Your task to perform on an android device: Go to internet settings Image 0: 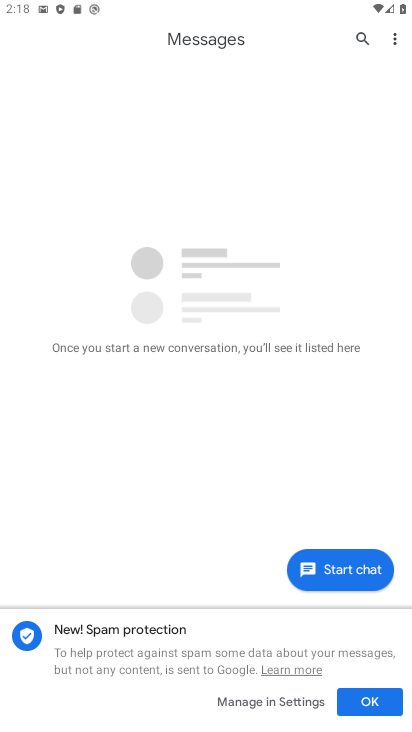
Step 0: drag from (284, 584) to (178, 90)
Your task to perform on an android device: Go to internet settings Image 1: 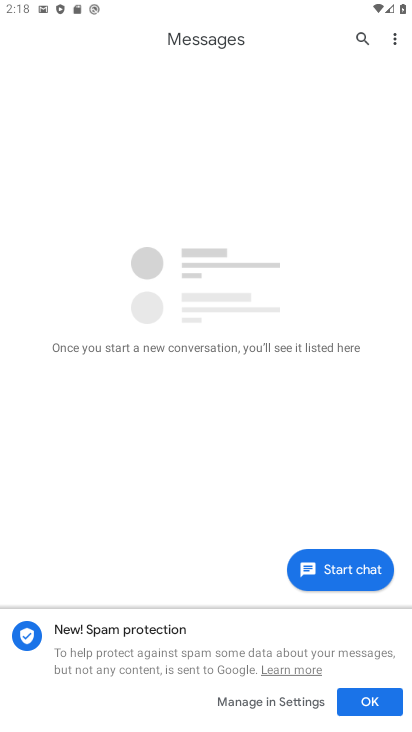
Step 1: drag from (241, 538) to (222, 222)
Your task to perform on an android device: Go to internet settings Image 2: 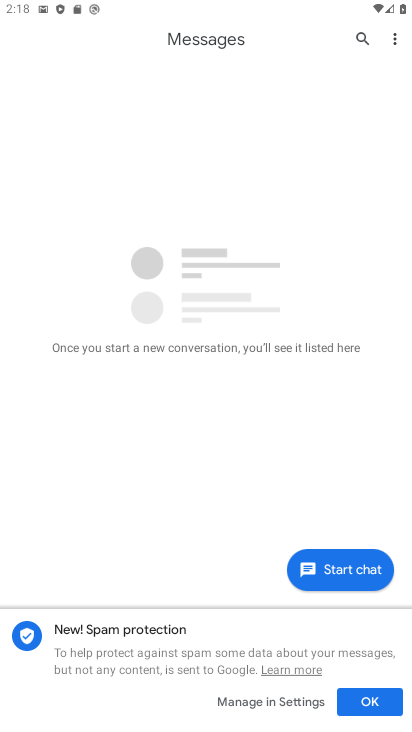
Step 2: press back button
Your task to perform on an android device: Go to internet settings Image 3: 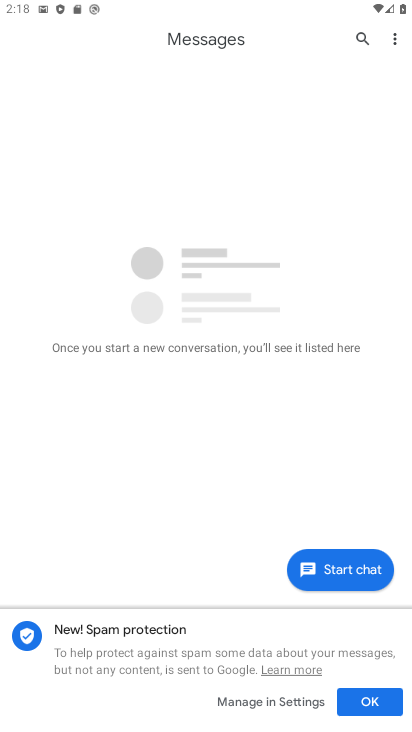
Step 3: press back button
Your task to perform on an android device: Go to internet settings Image 4: 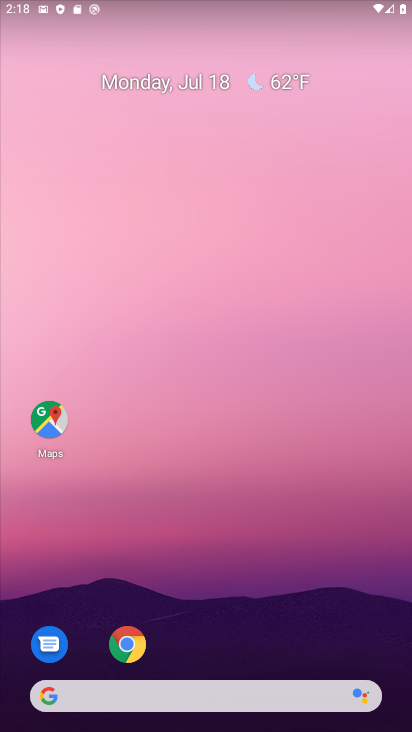
Step 4: drag from (256, 589) to (203, 258)
Your task to perform on an android device: Go to internet settings Image 5: 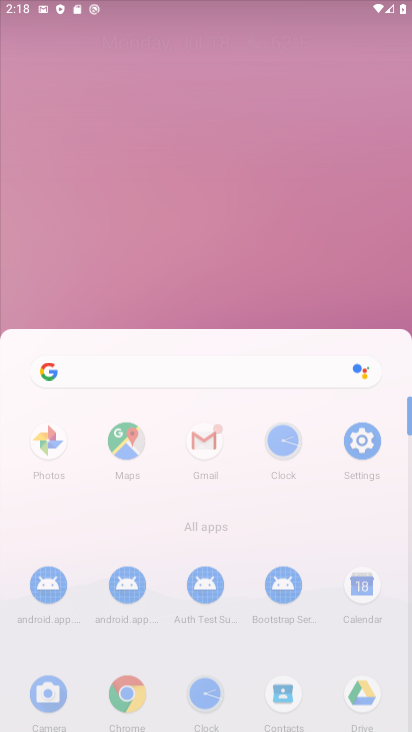
Step 5: click (201, 137)
Your task to perform on an android device: Go to internet settings Image 6: 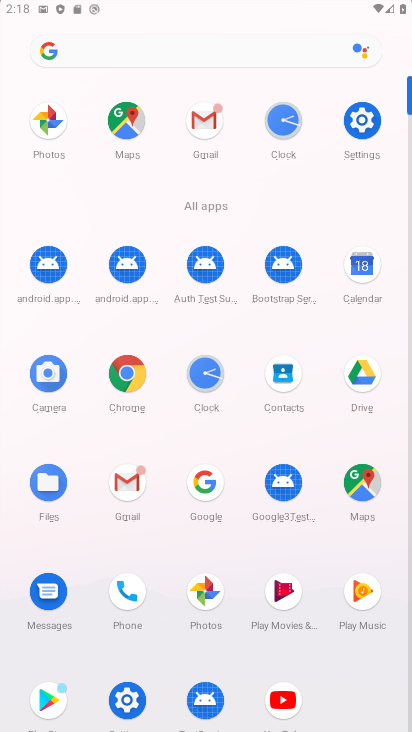
Step 6: click (299, 223)
Your task to perform on an android device: Go to internet settings Image 7: 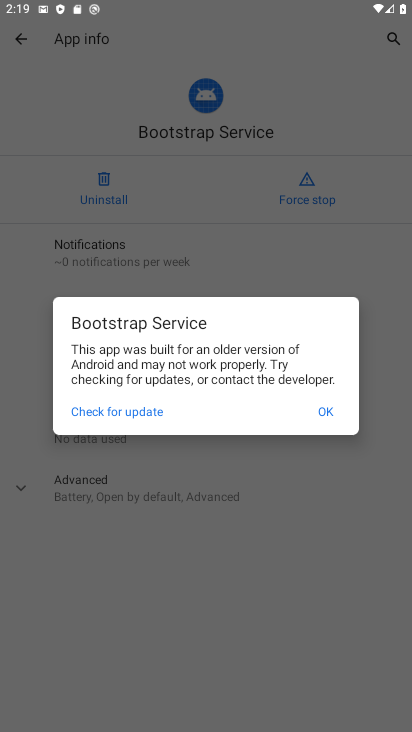
Step 7: click (322, 406)
Your task to perform on an android device: Go to internet settings Image 8: 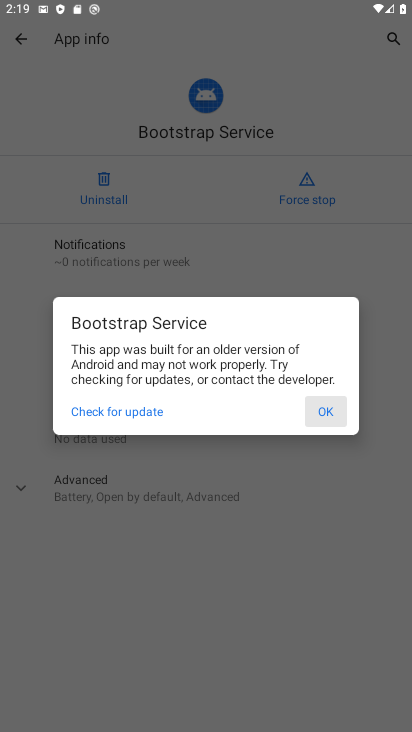
Step 8: click (326, 411)
Your task to perform on an android device: Go to internet settings Image 9: 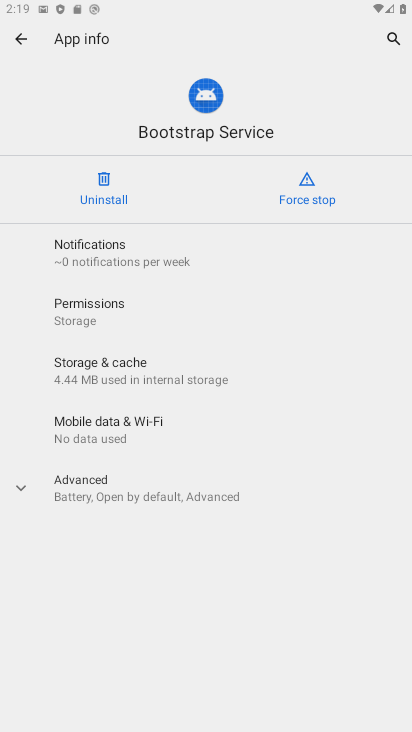
Step 9: click (326, 411)
Your task to perform on an android device: Go to internet settings Image 10: 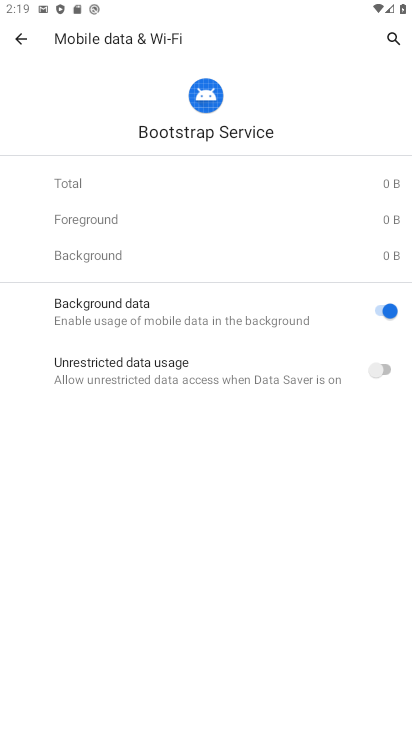
Step 10: click (20, 34)
Your task to perform on an android device: Go to internet settings Image 11: 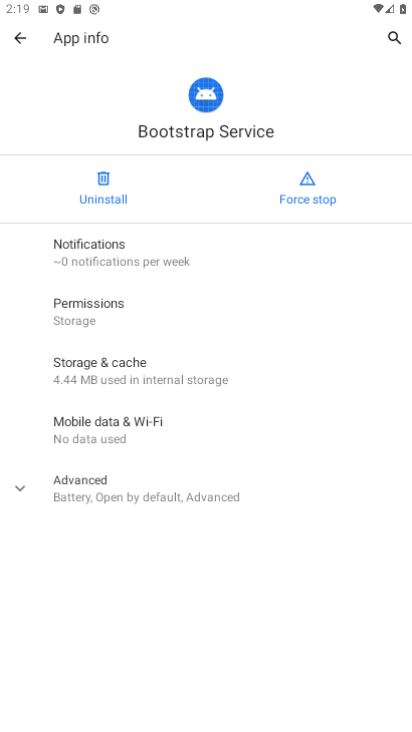
Step 11: click (23, 35)
Your task to perform on an android device: Go to internet settings Image 12: 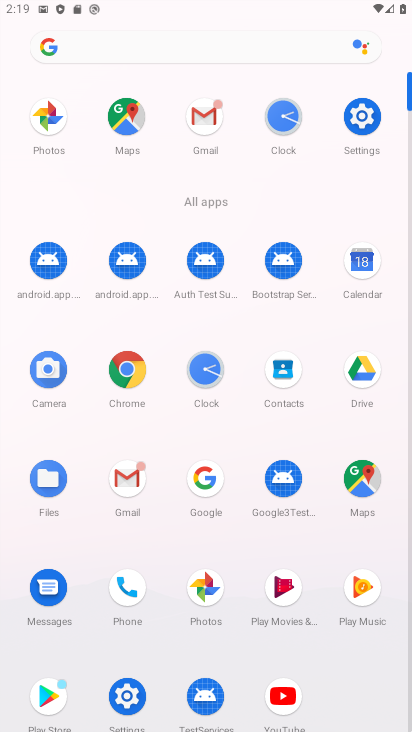
Step 12: click (135, 695)
Your task to perform on an android device: Go to internet settings Image 13: 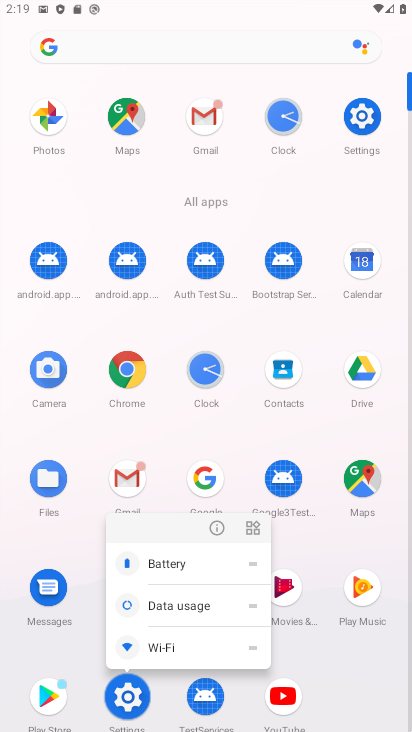
Step 13: click (114, 684)
Your task to perform on an android device: Go to internet settings Image 14: 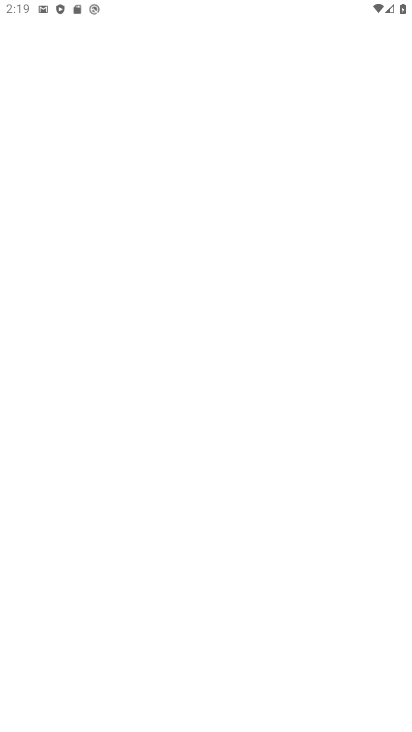
Step 14: click (131, 683)
Your task to perform on an android device: Go to internet settings Image 15: 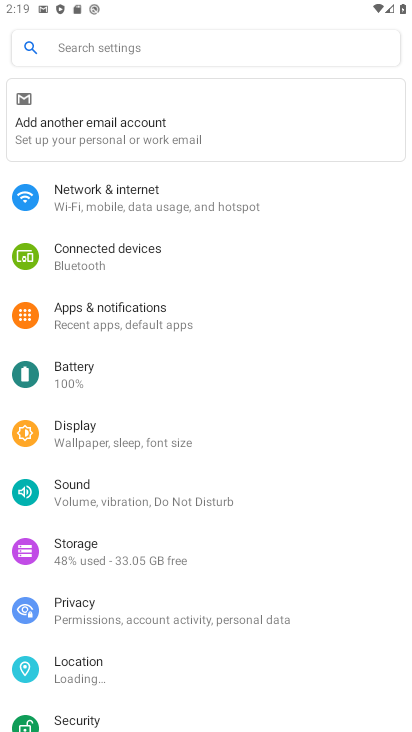
Step 15: click (119, 192)
Your task to perform on an android device: Go to internet settings Image 16: 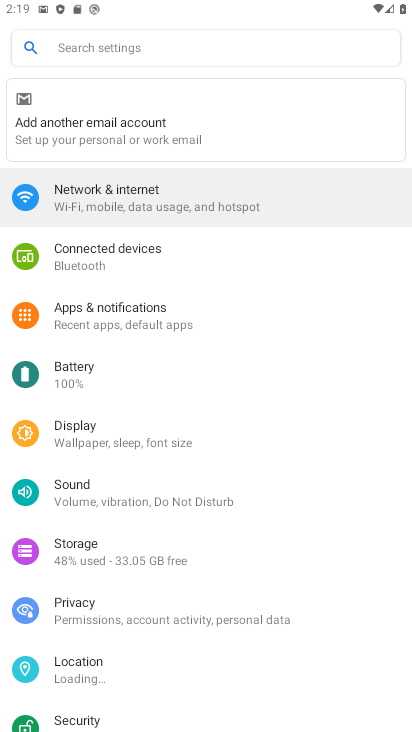
Step 16: click (120, 196)
Your task to perform on an android device: Go to internet settings Image 17: 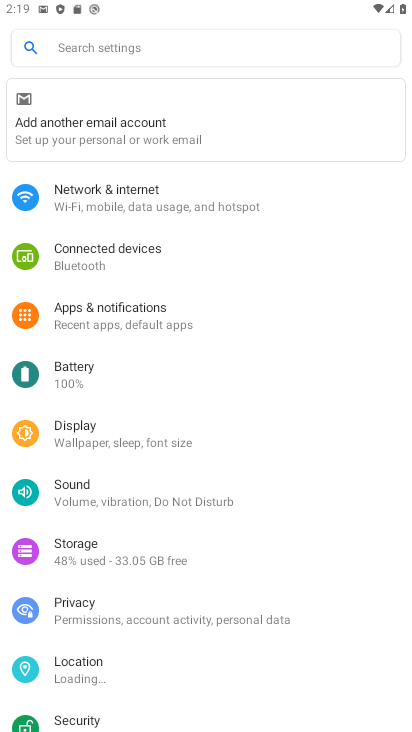
Step 17: click (125, 201)
Your task to perform on an android device: Go to internet settings Image 18: 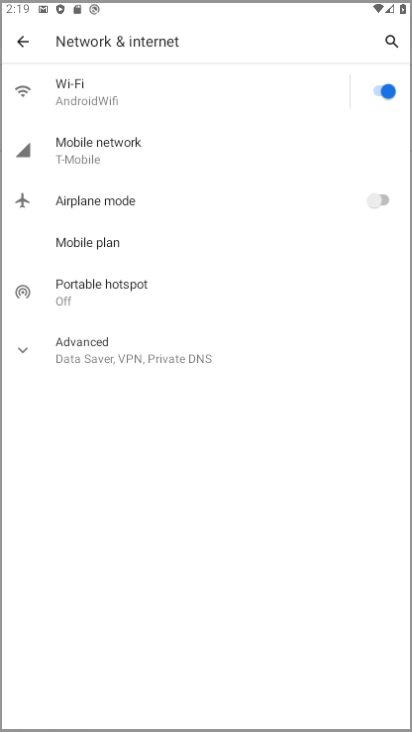
Step 18: click (126, 201)
Your task to perform on an android device: Go to internet settings Image 19: 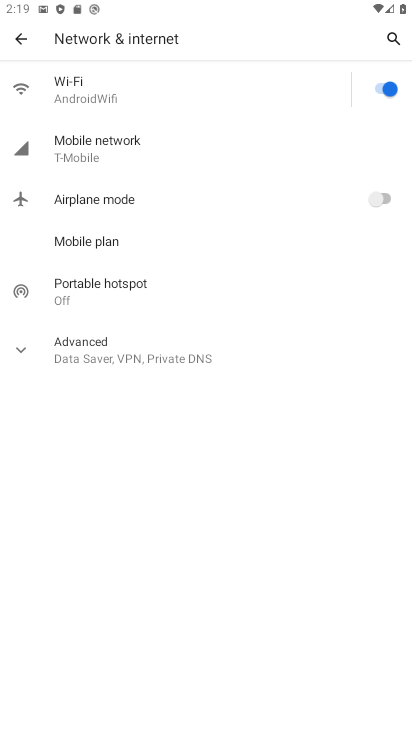
Step 19: task complete